Your task to perform on an android device: Check the news Image 0: 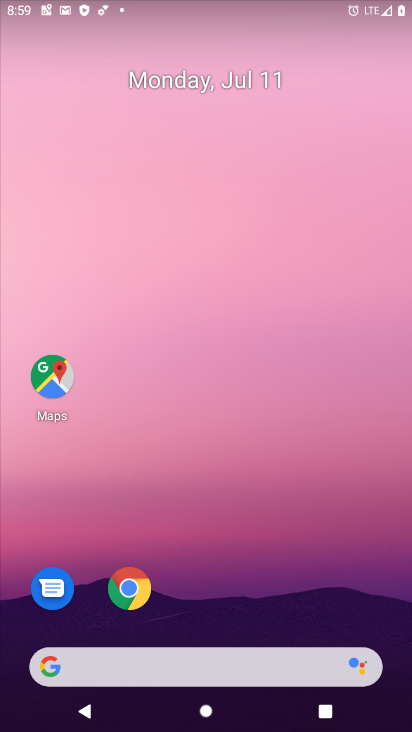
Step 0: click (148, 668)
Your task to perform on an android device: Check the news Image 1: 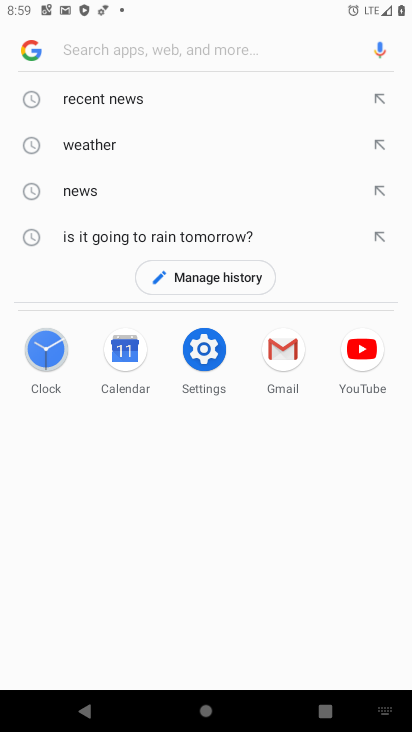
Step 1: click (89, 190)
Your task to perform on an android device: Check the news Image 2: 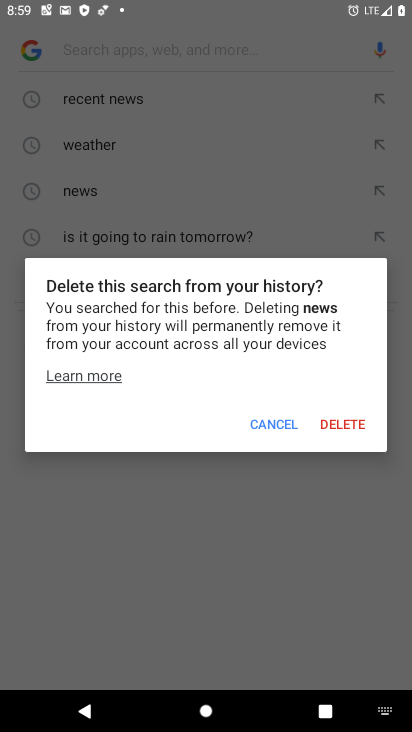
Step 2: click (148, 514)
Your task to perform on an android device: Check the news Image 3: 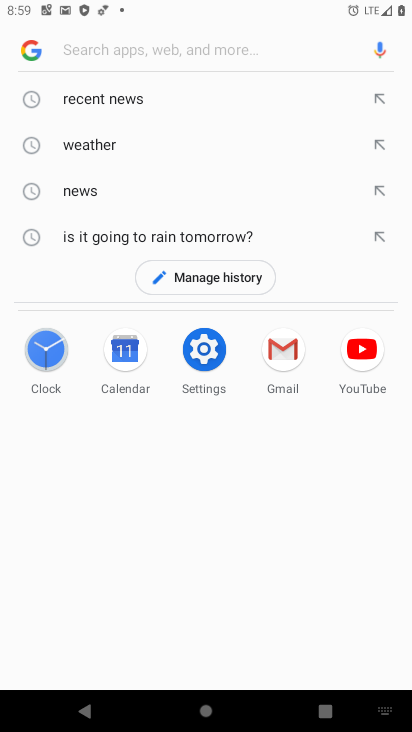
Step 3: click (264, 429)
Your task to perform on an android device: Check the news Image 4: 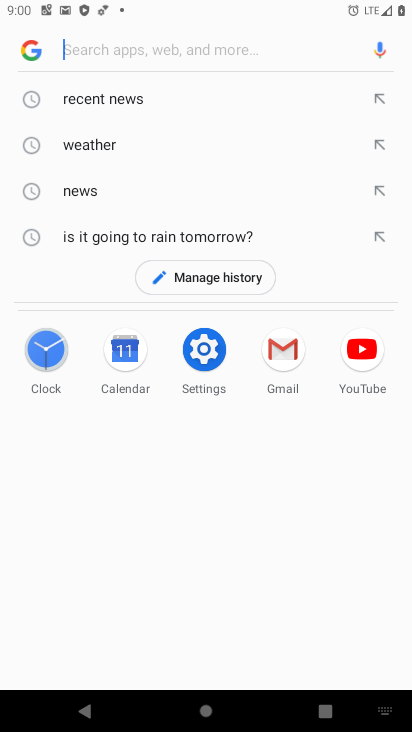
Step 4: click (89, 192)
Your task to perform on an android device: Check the news Image 5: 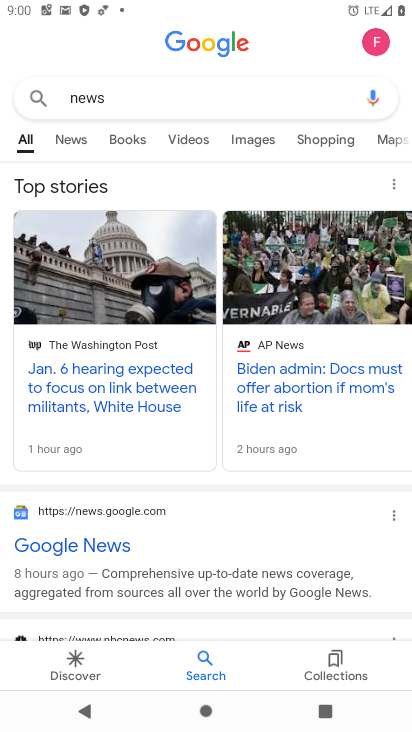
Step 5: task complete